Your task to perform on an android device: Go to Maps Image 0: 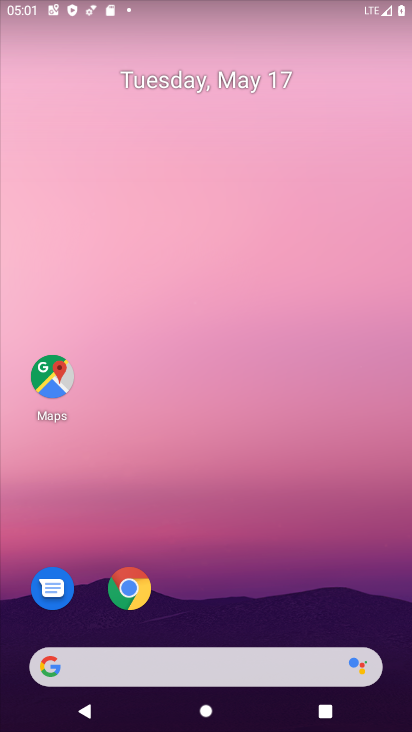
Step 0: click (54, 377)
Your task to perform on an android device: Go to Maps Image 1: 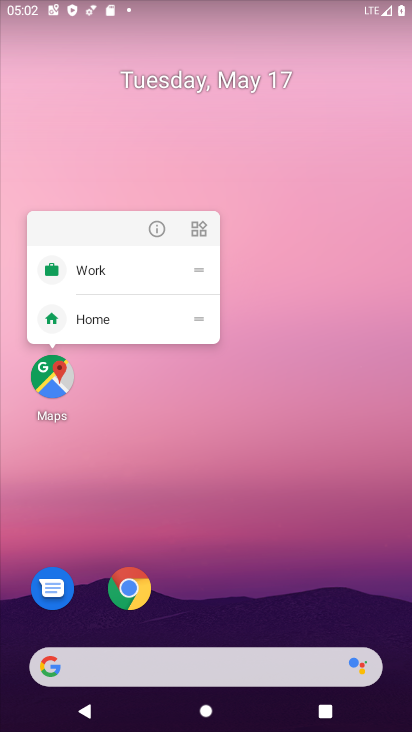
Step 1: click (49, 381)
Your task to perform on an android device: Go to Maps Image 2: 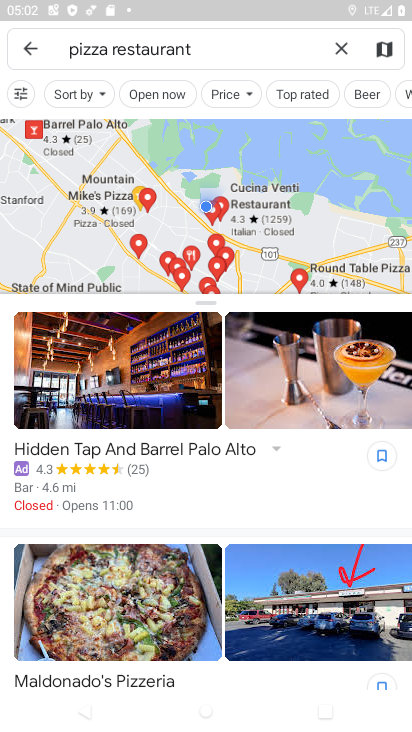
Step 2: click (341, 42)
Your task to perform on an android device: Go to Maps Image 3: 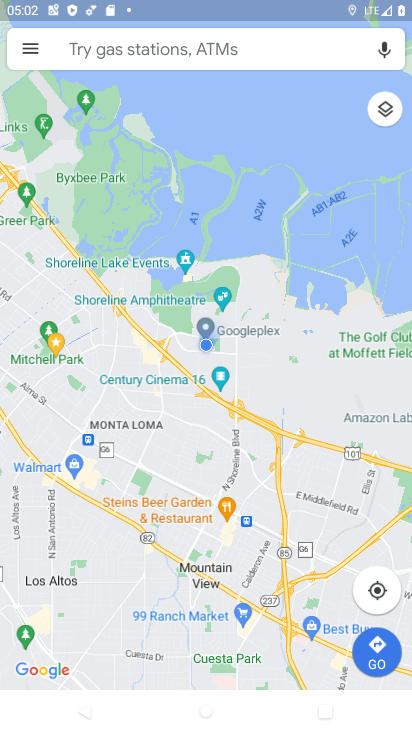
Step 3: task complete